Your task to perform on an android device: What's on the menu at Pizza Hut? Image 0: 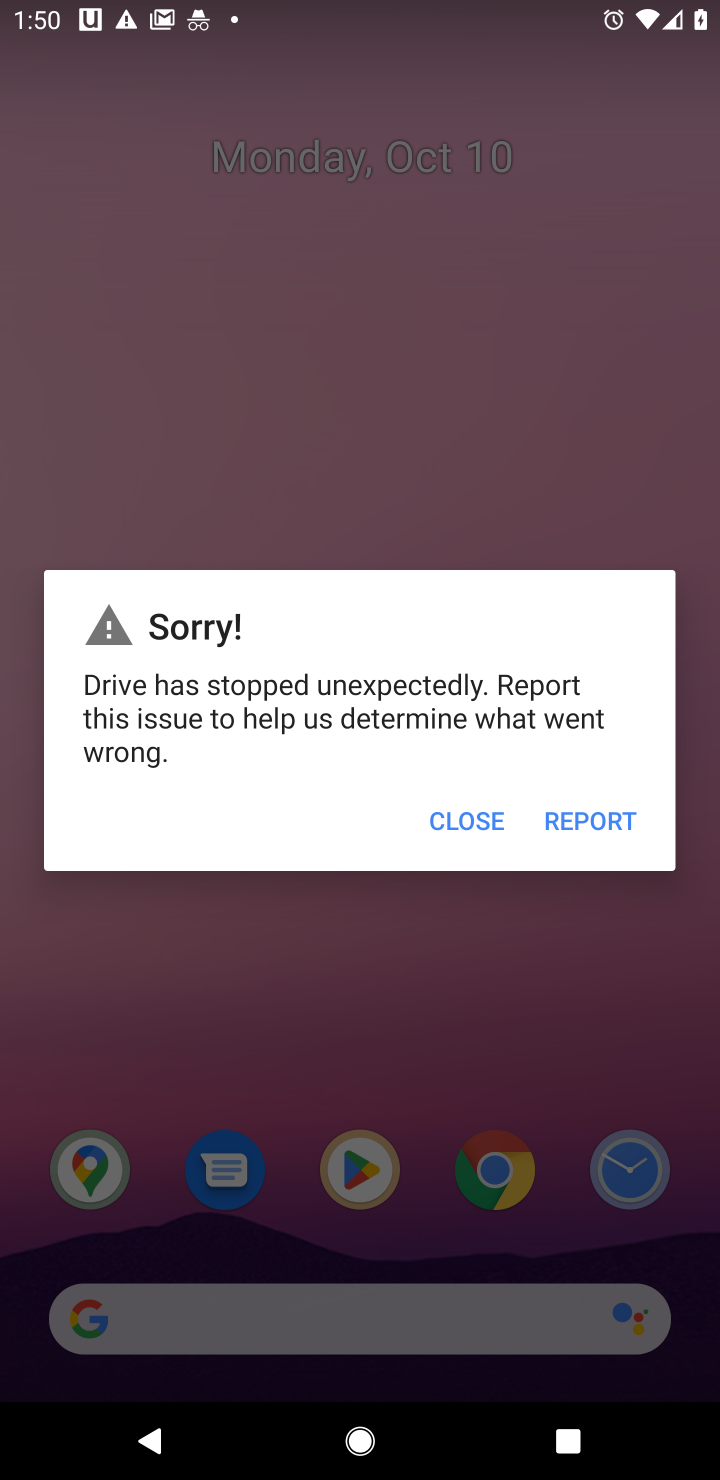
Step 0: press home button
Your task to perform on an android device: What's on the menu at Pizza Hut? Image 1: 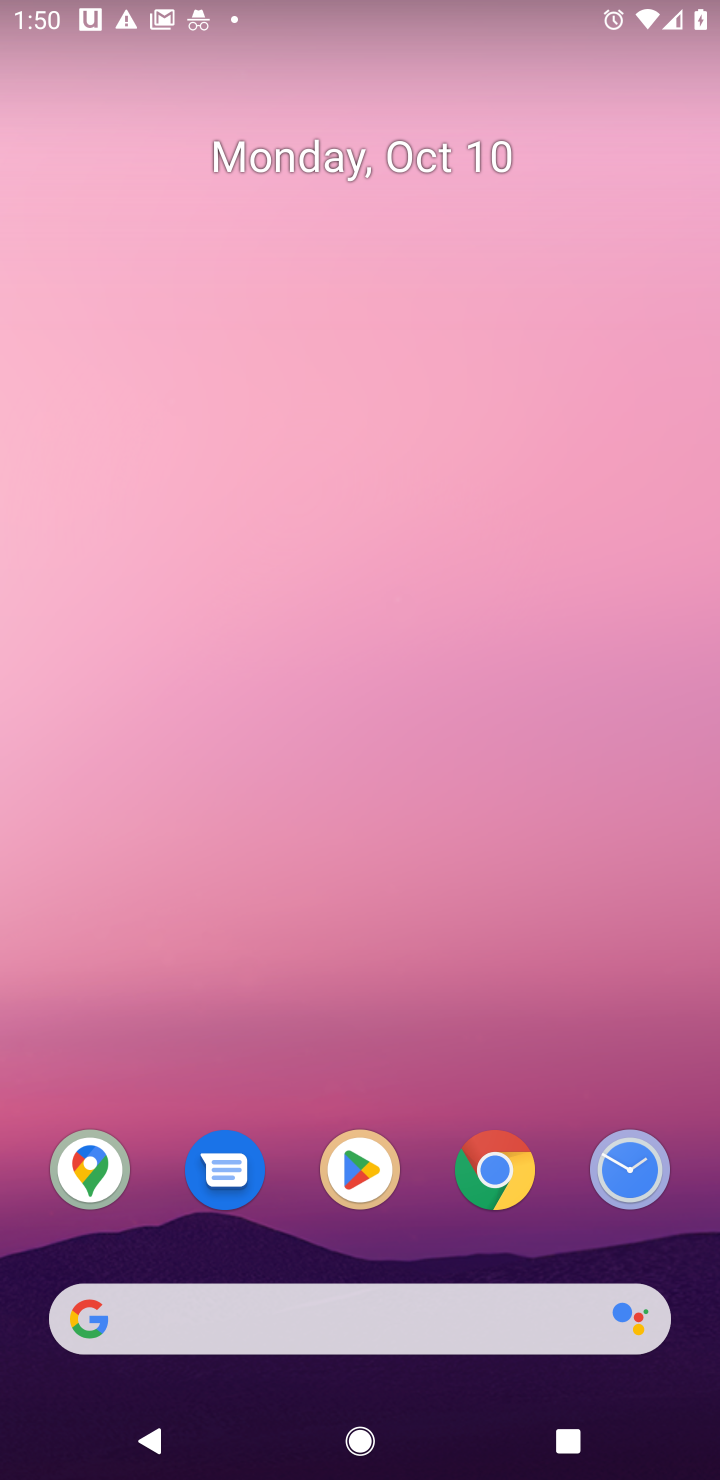
Step 1: click (492, 1189)
Your task to perform on an android device: What's on the menu at Pizza Hut? Image 2: 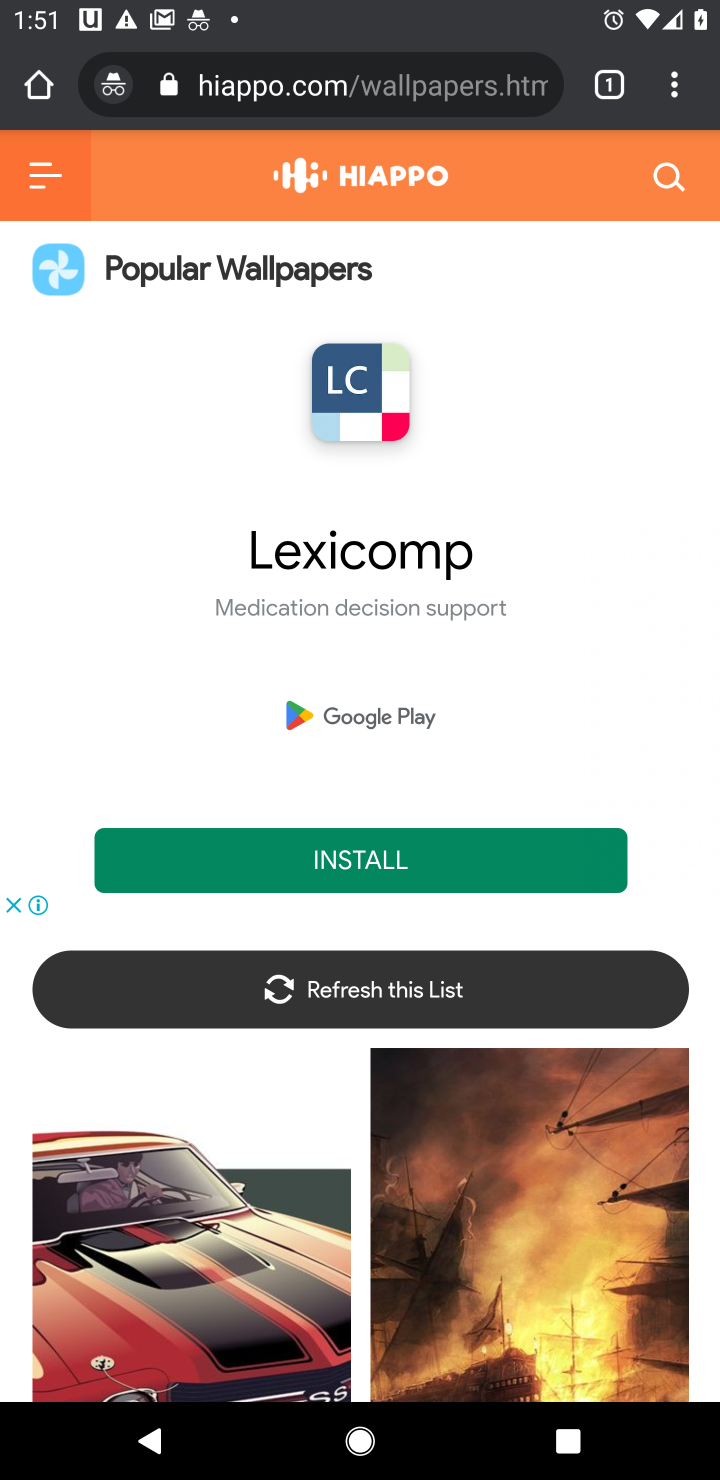
Step 2: click (312, 77)
Your task to perform on an android device: What's on the menu at Pizza Hut? Image 3: 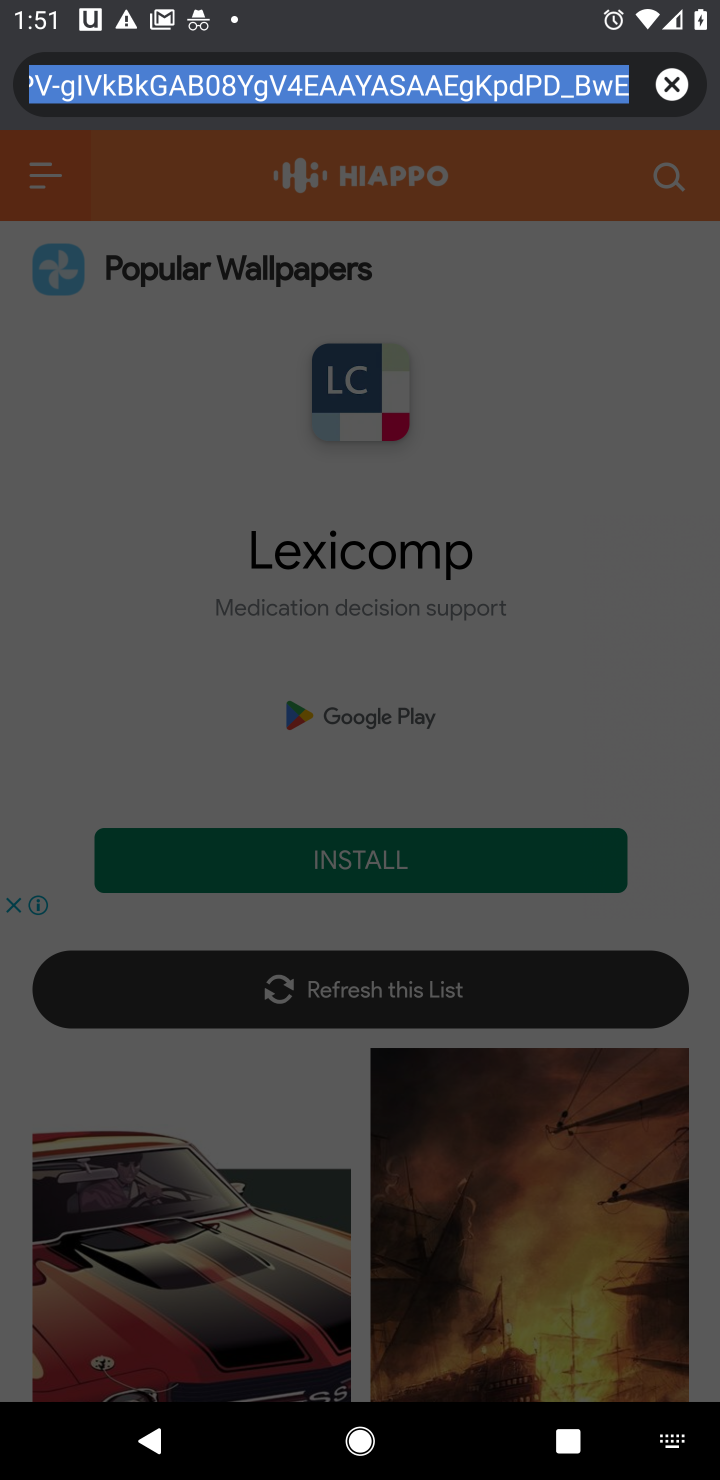
Step 3: click (672, 86)
Your task to perform on an android device: What's on the menu at Pizza Hut? Image 4: 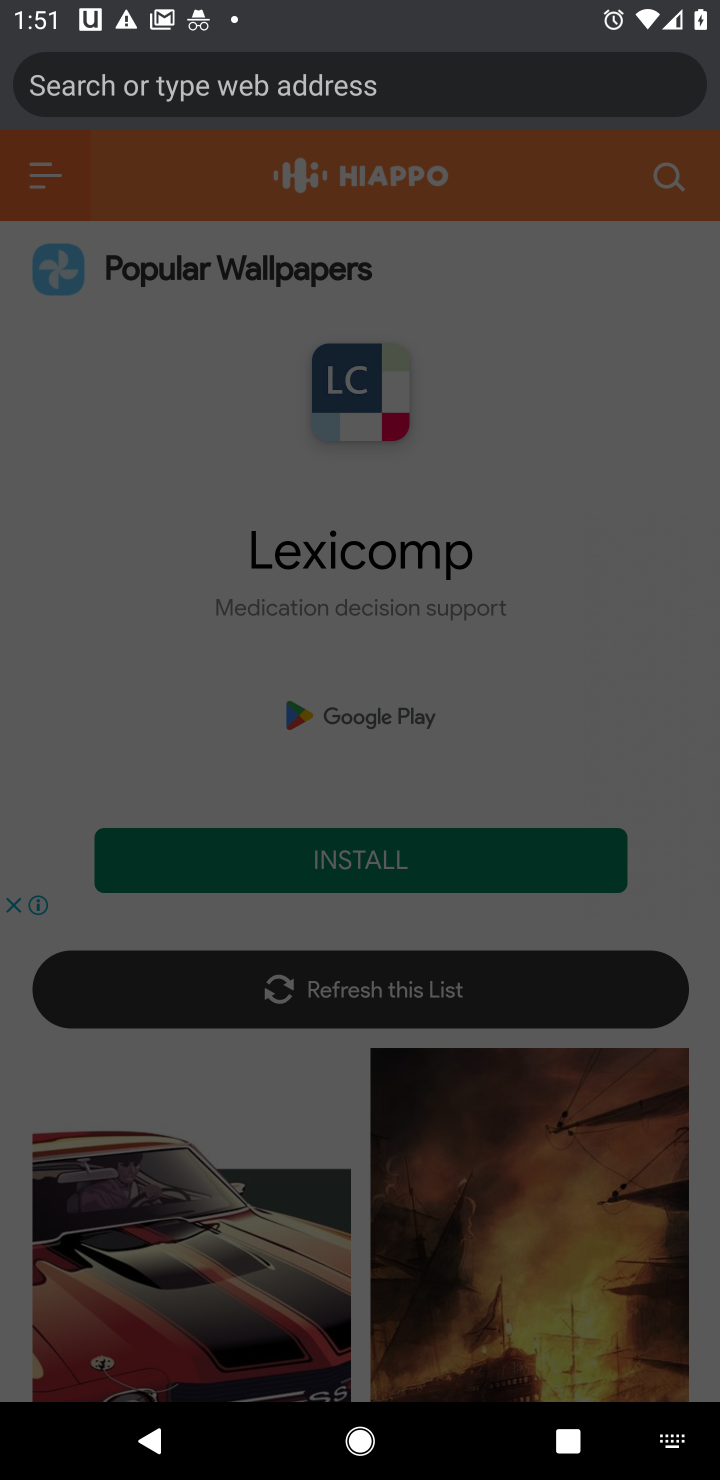
Step 4: type "menu at pizza hut"
Your task to perform on an android device: What's on the menu at Pizza Hut? Image 5: 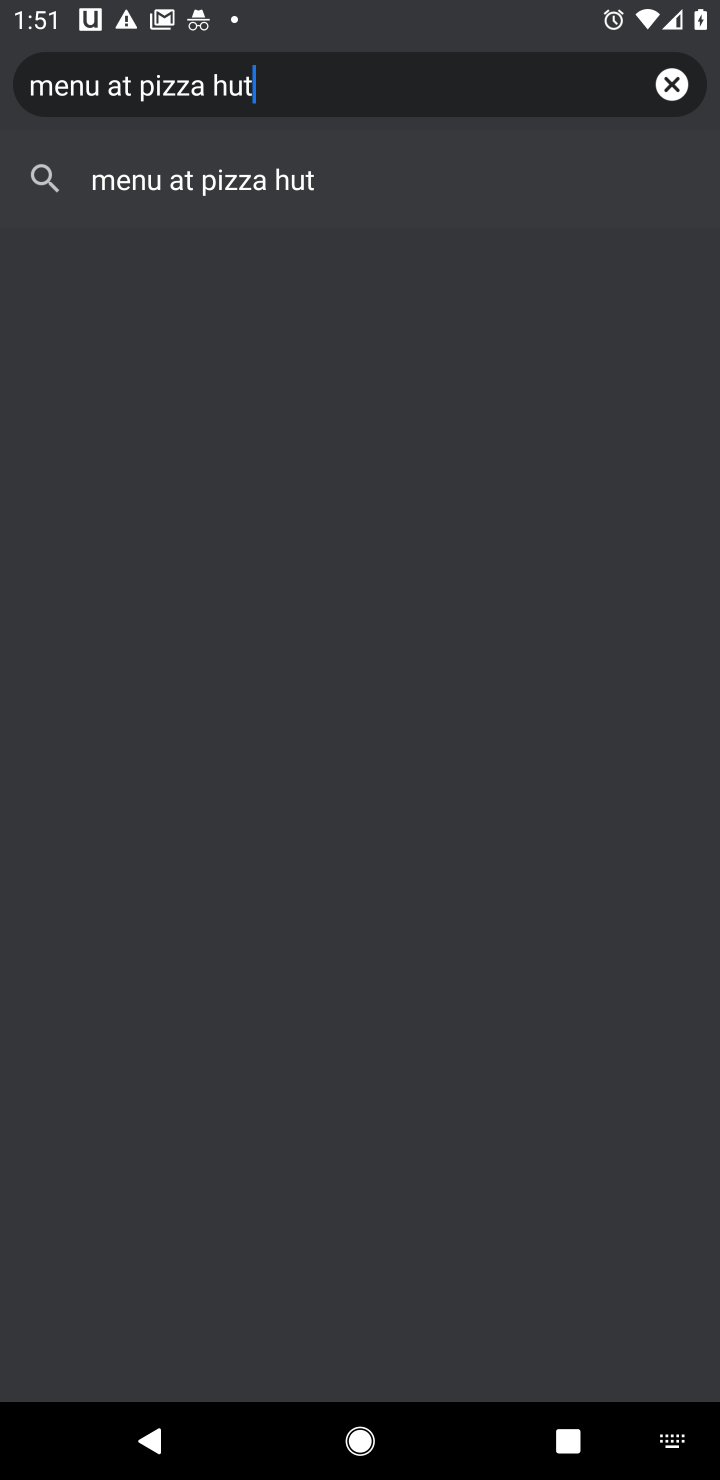
Step 5: click (289, 185)
Your task to perform on an android device: What's on the menu at Pizza Hut? Image 6: 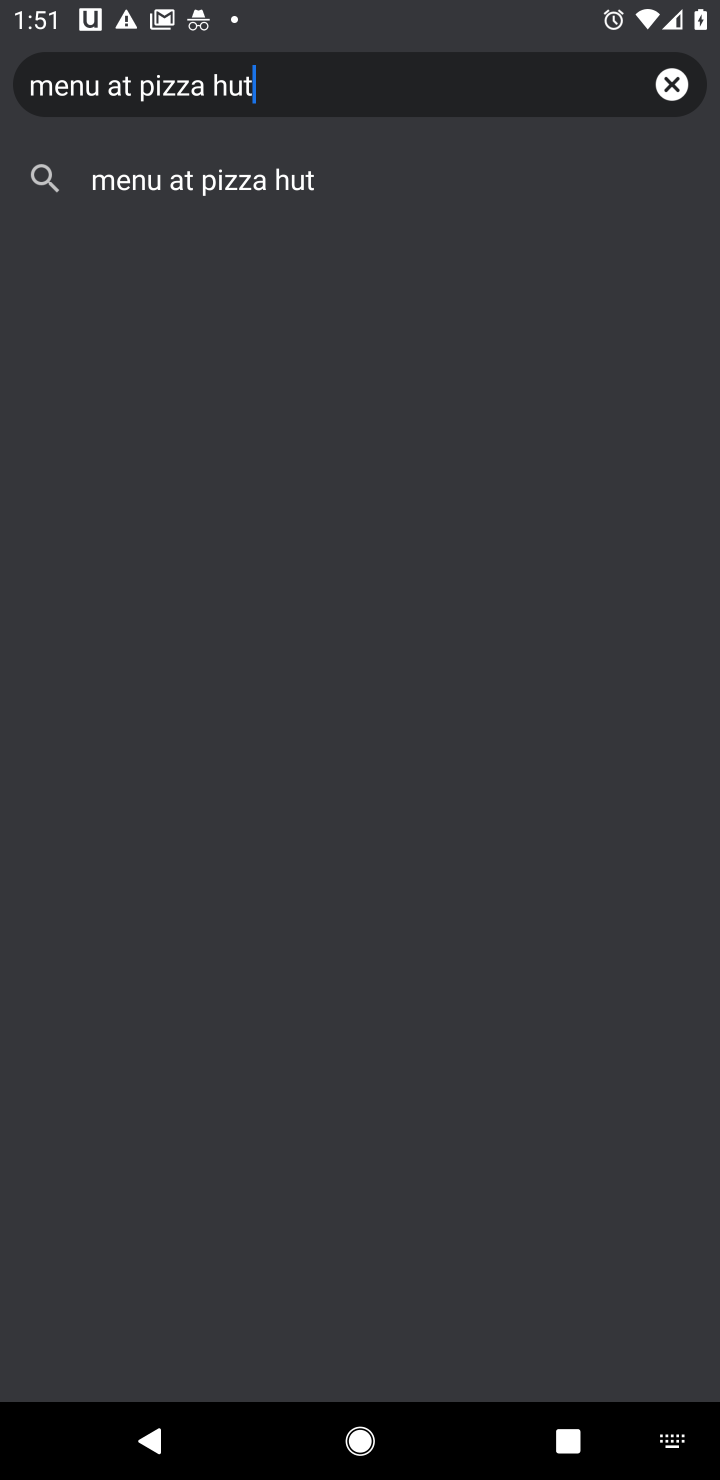
Step 6: click (289, 185)
Your task to perform on an android device: What's on the menu at Pizza Hut? Image 7: 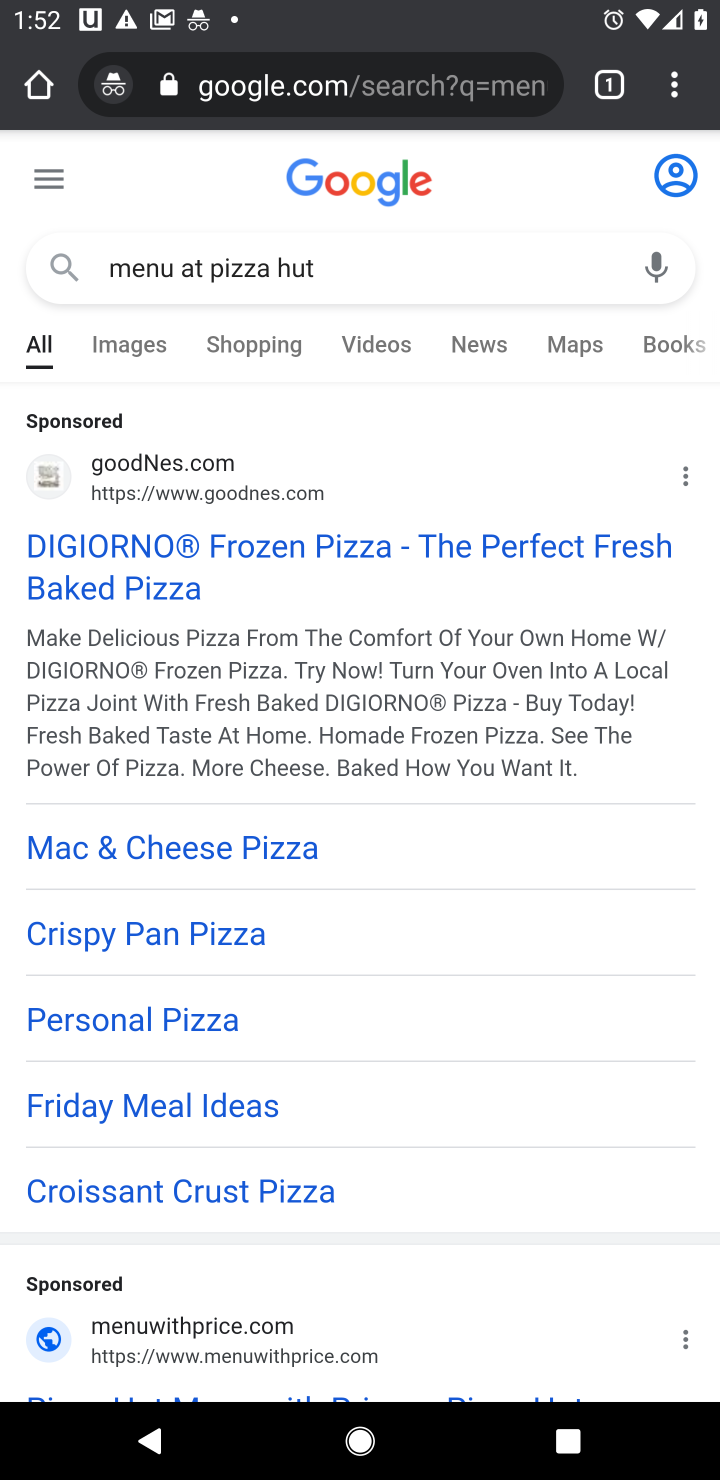
Step 7: task complete